Your task to perform on an android device: Clear all items from cart on amazon.com. Search for "razer naga" on amazon.com, select the first entry, and add it to the cart. Image 0: 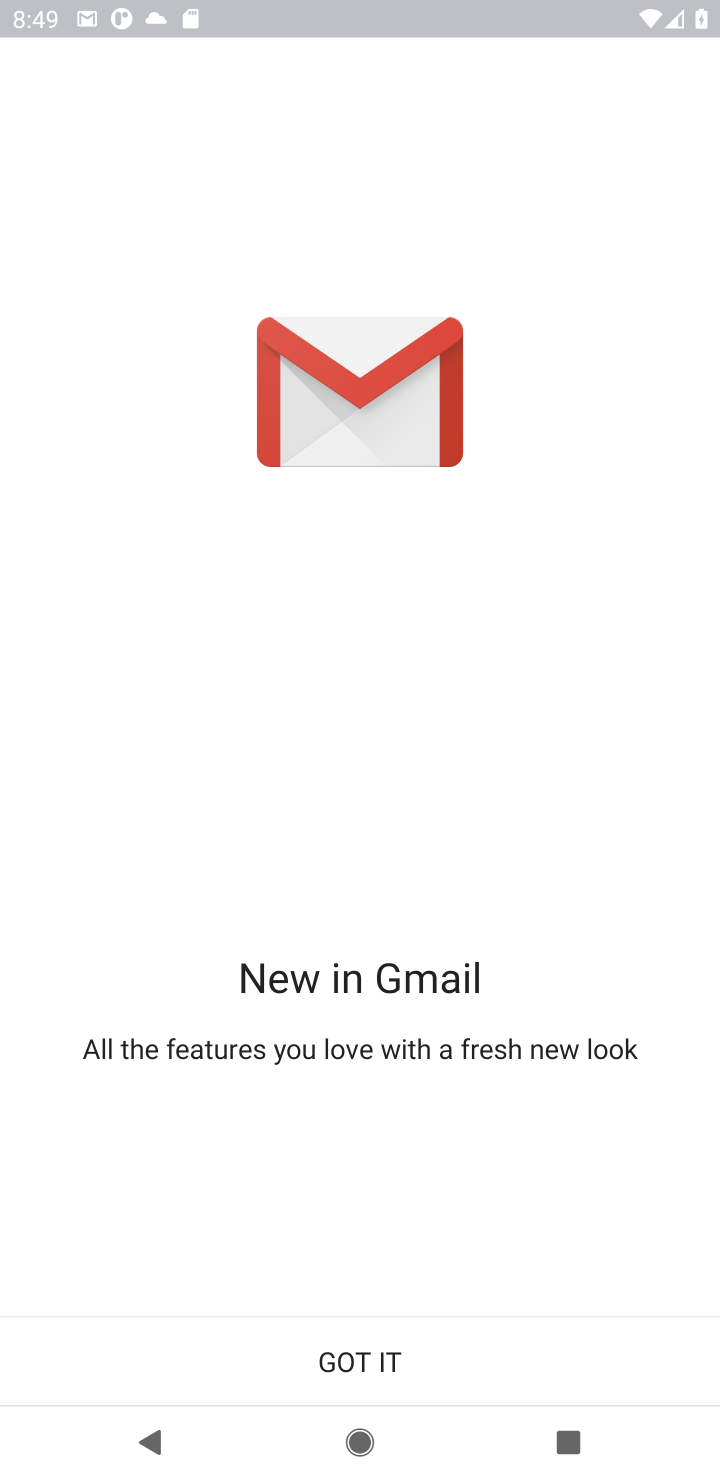
Step 0: press home button
Your task to perform on an android device: Clear all items from cart on amazon.com. Search for "razer naga" on amazon.com, select the first entry, and add it to the cart. Image 1: 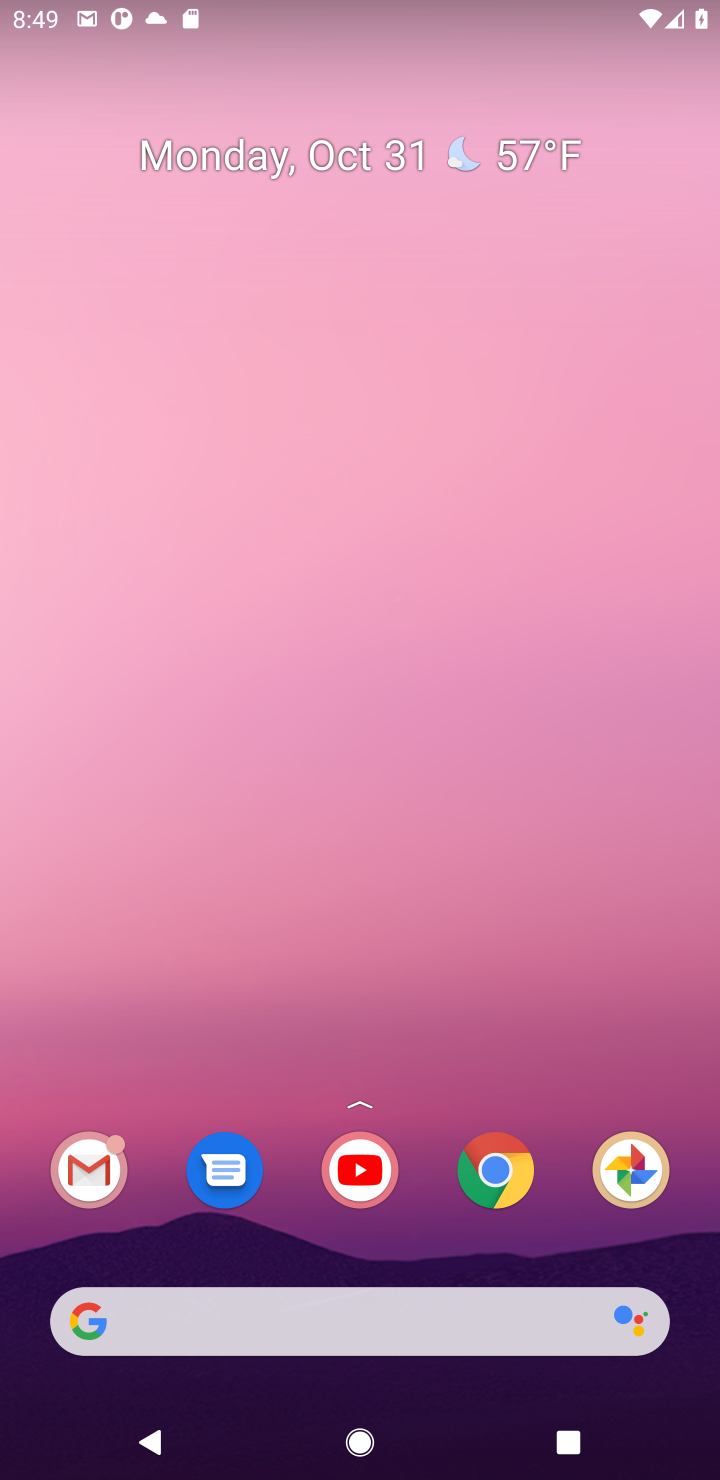
Step 1: click (494, 1193)
Your task to perform on an android device: Clear all items from cart on amazon.com. Search for "razer naga" on amazon.com, select the first entry, and add it to the cart. Image 2: 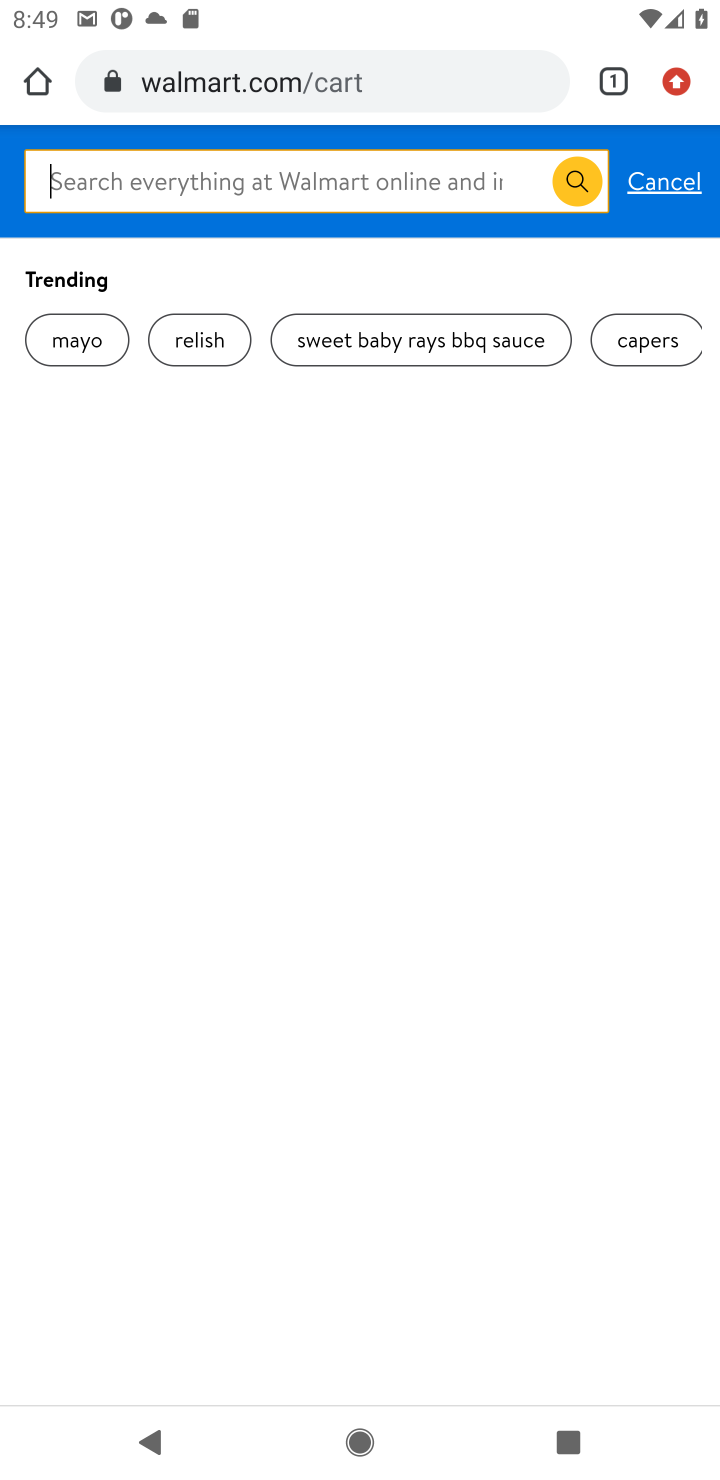
Step 2: click (245, 78)
Your task to perform on an android device: Clear all items from cart on amazon.com. Search for "razer naga" on amazon.com, select the first entry, and add it to the cart. Image 3: 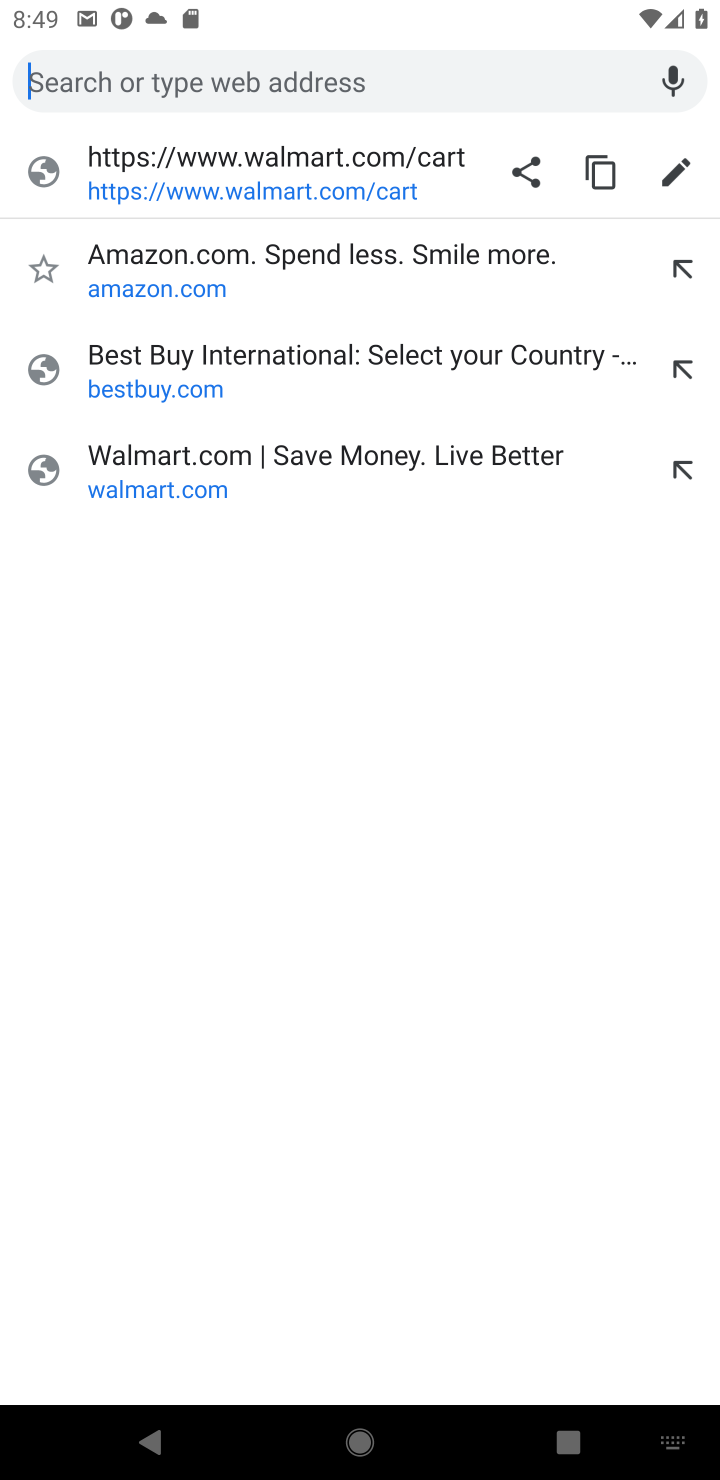
Step 3: click (337, 260)
Your task to perform on an android device: Clear all items from cart on amazon.com. Search for "razer naga" on amazon.com, select the first entry, and add it to the cart. Image 4: 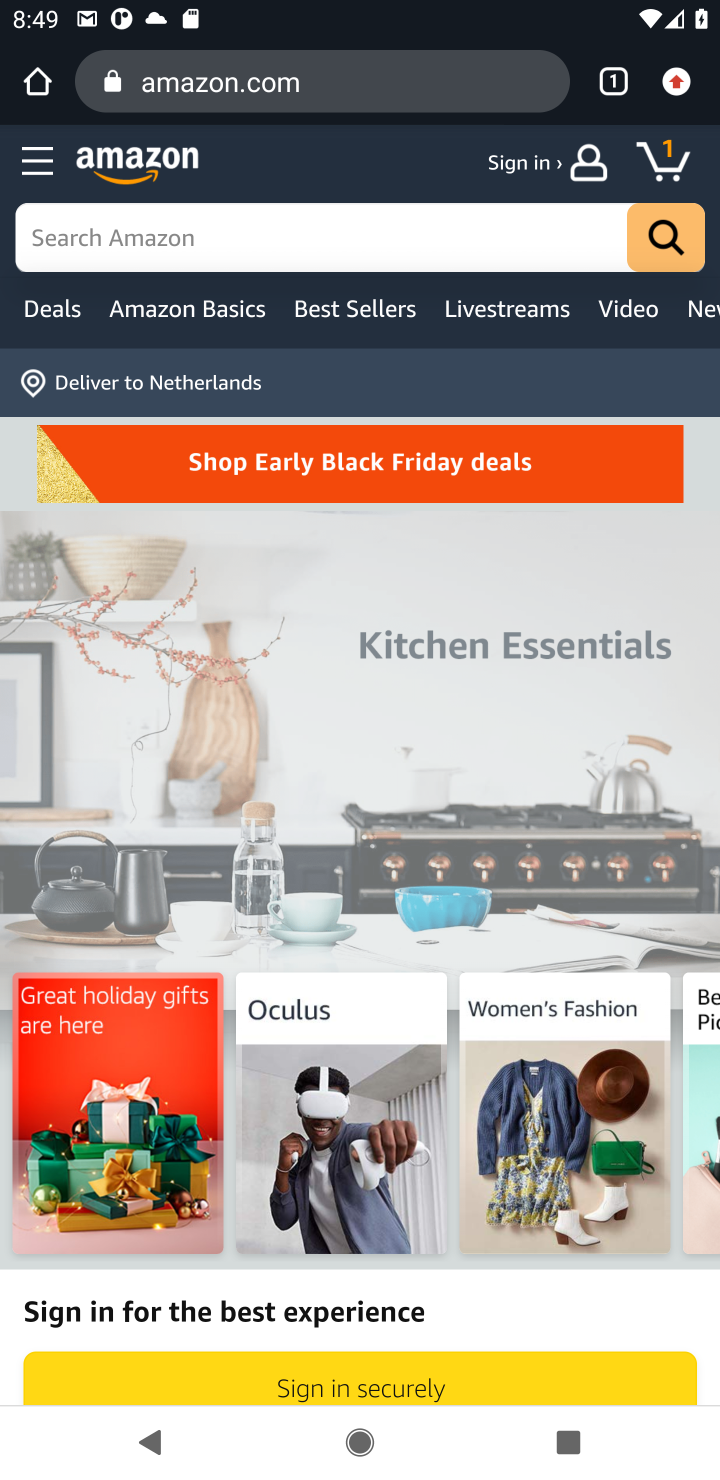
Step 4: click (670, 172)
Your task to perform on an android device: Clear all items from cart on amazon.com. Search for "razer naga" on amazon.com, select the first entry, and add it to the cart. Image 5: 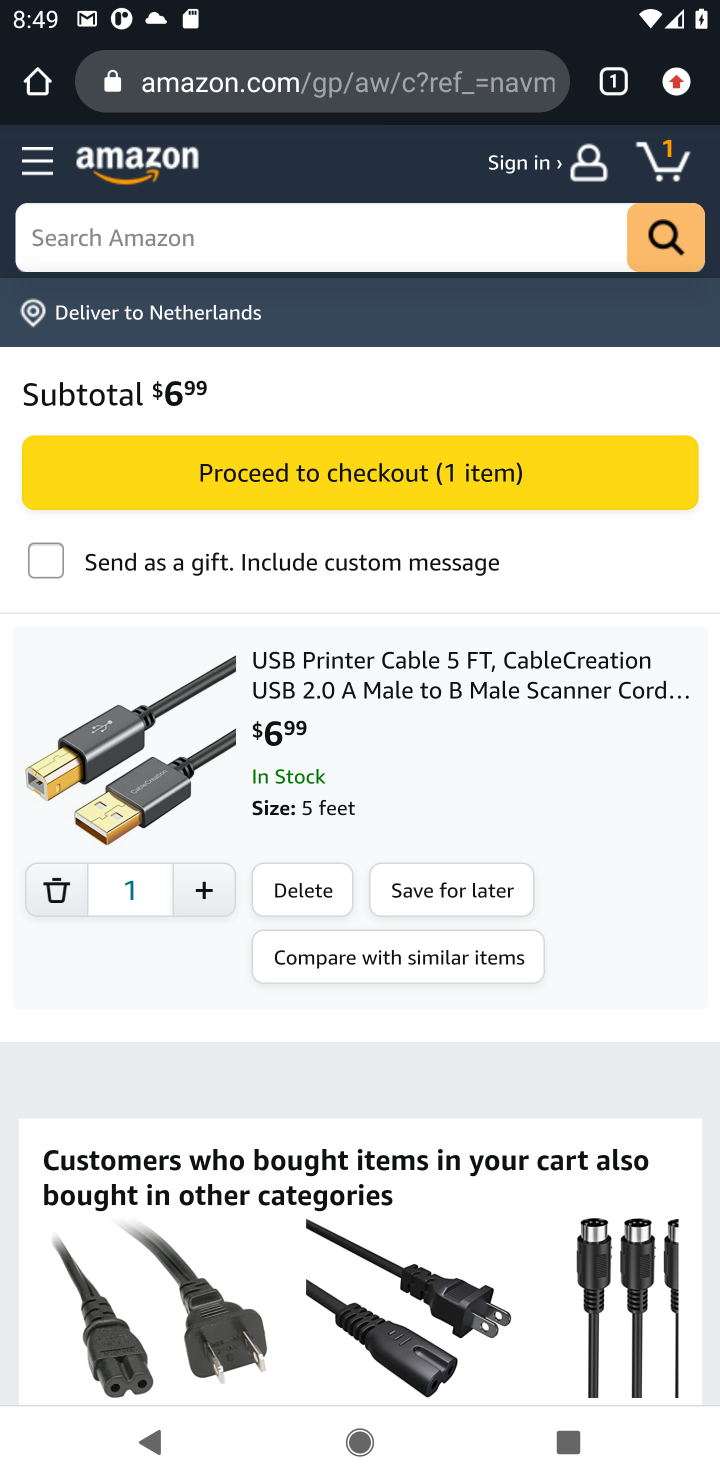
Step 5: click (285, 905)
Your task to perform on an android device: Clear all items from cart on amazon.com. Search for "razer naga" on amazon.com, select the first entry, and add it to the cart. Image 6: 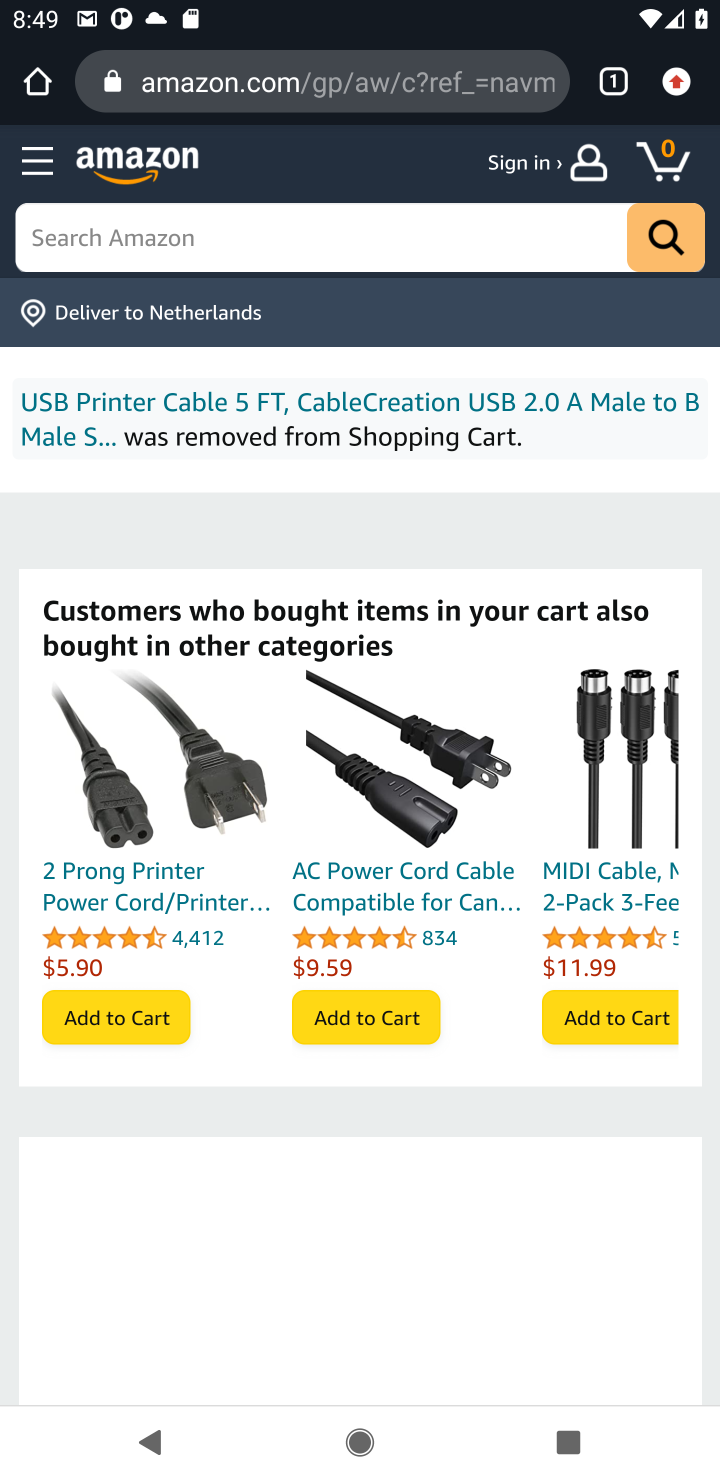
Step 6: click (159, 241)
Your task to perform on an android device: Clear all items from cart on amazon.com. Search for "razer naga" on amazon.com, select the first entry, and add it to the cart. Image 7: 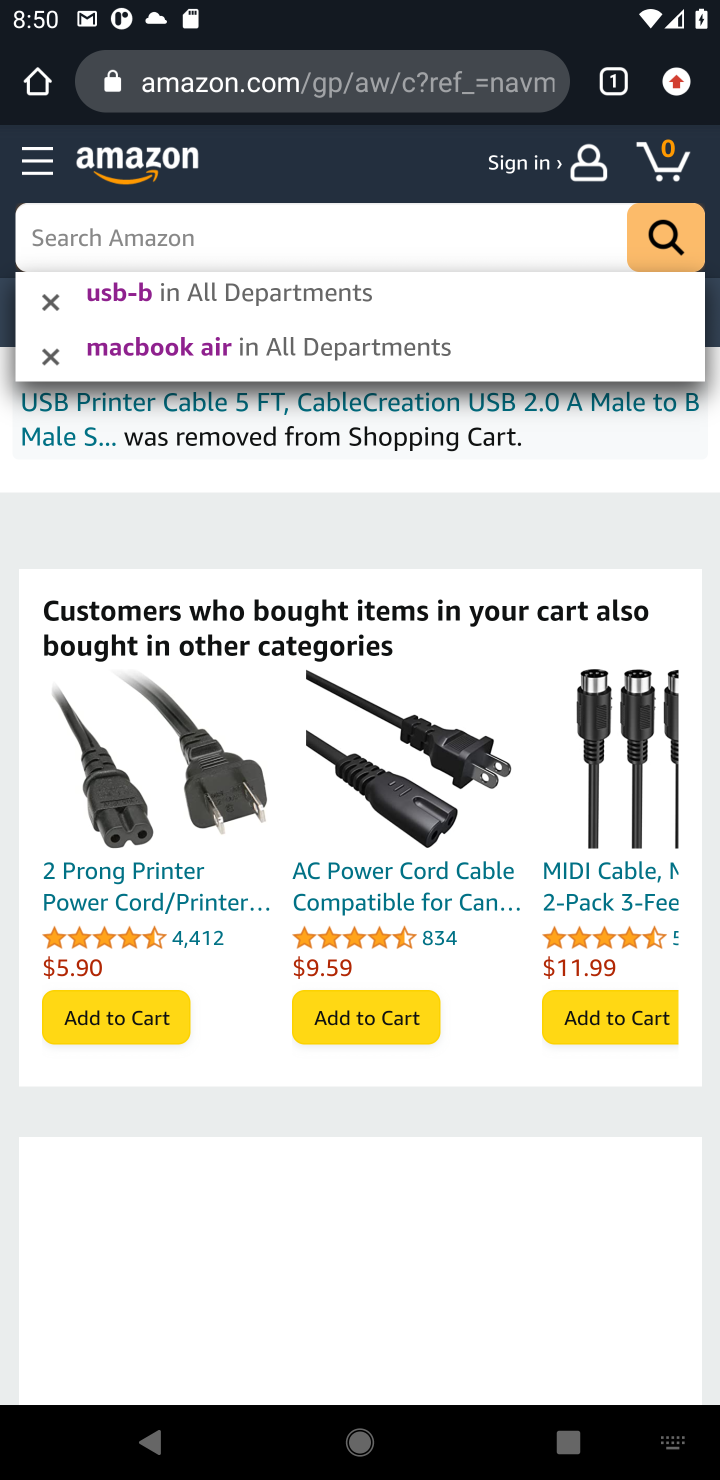
Step 7: type "razer naga"
Your task to perform on an android device: Clear all items from cart on amazon.com. Search for "razer naga" on amazon.com, select the first entry, and add it to the cart. Image 8: 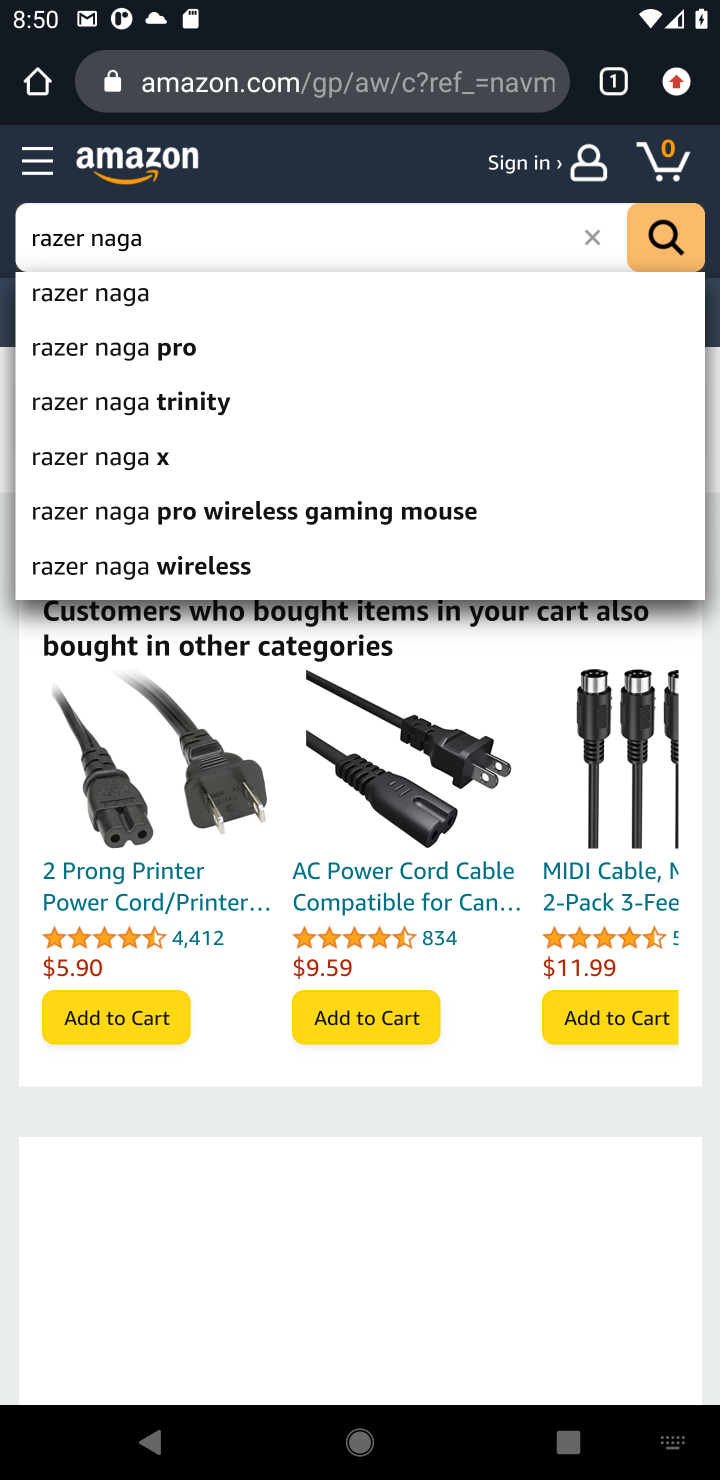
Step 8: click (660, 223)
Your task to perform on an android device: Clear all items from cart on amazon.com. Search for "razer naga" on amazon.com, select the first entry, and add it to the cart. Image 9: 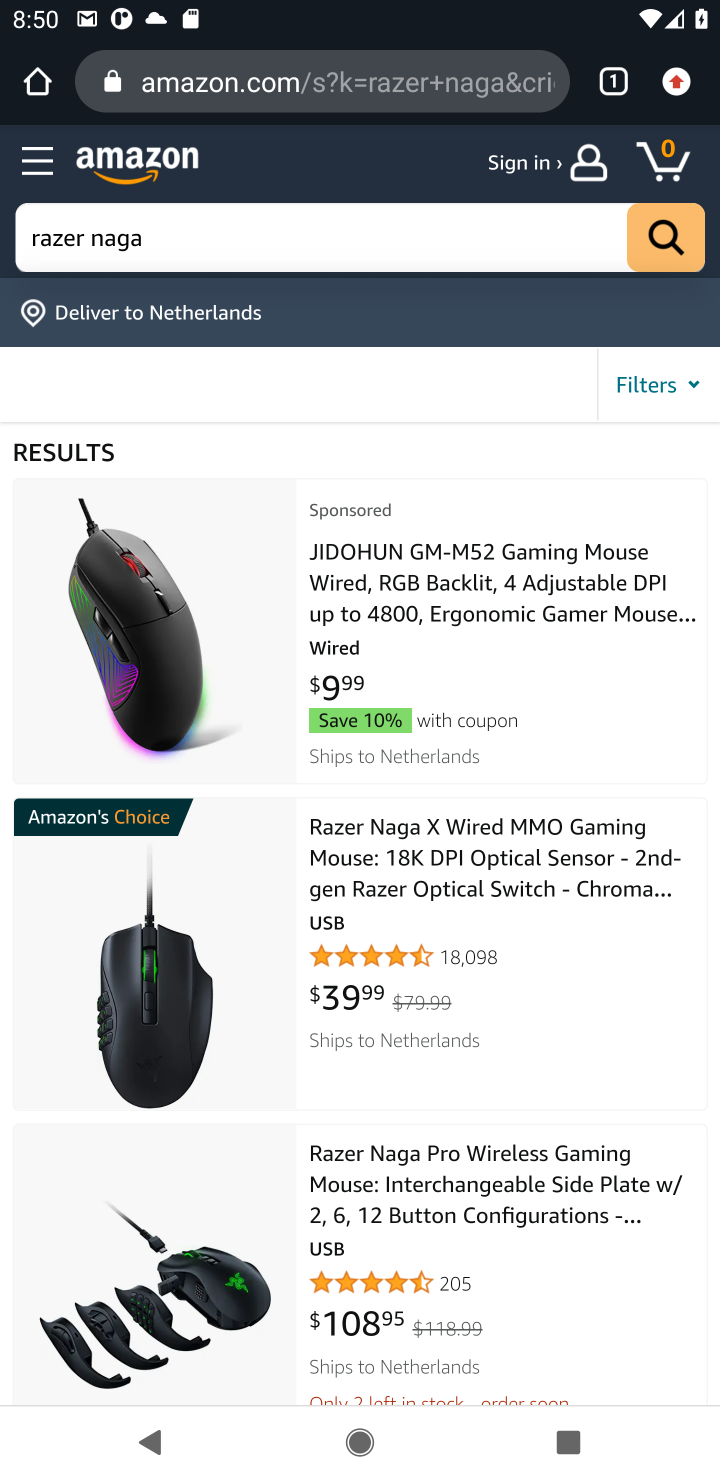
Step 9: click (420, 850)
Your task to perform on an android device: Clear all items from cart on amazon.com. Search for "razer naga" on amazon.com, select the first entry, and add it to the cart. Image 10: 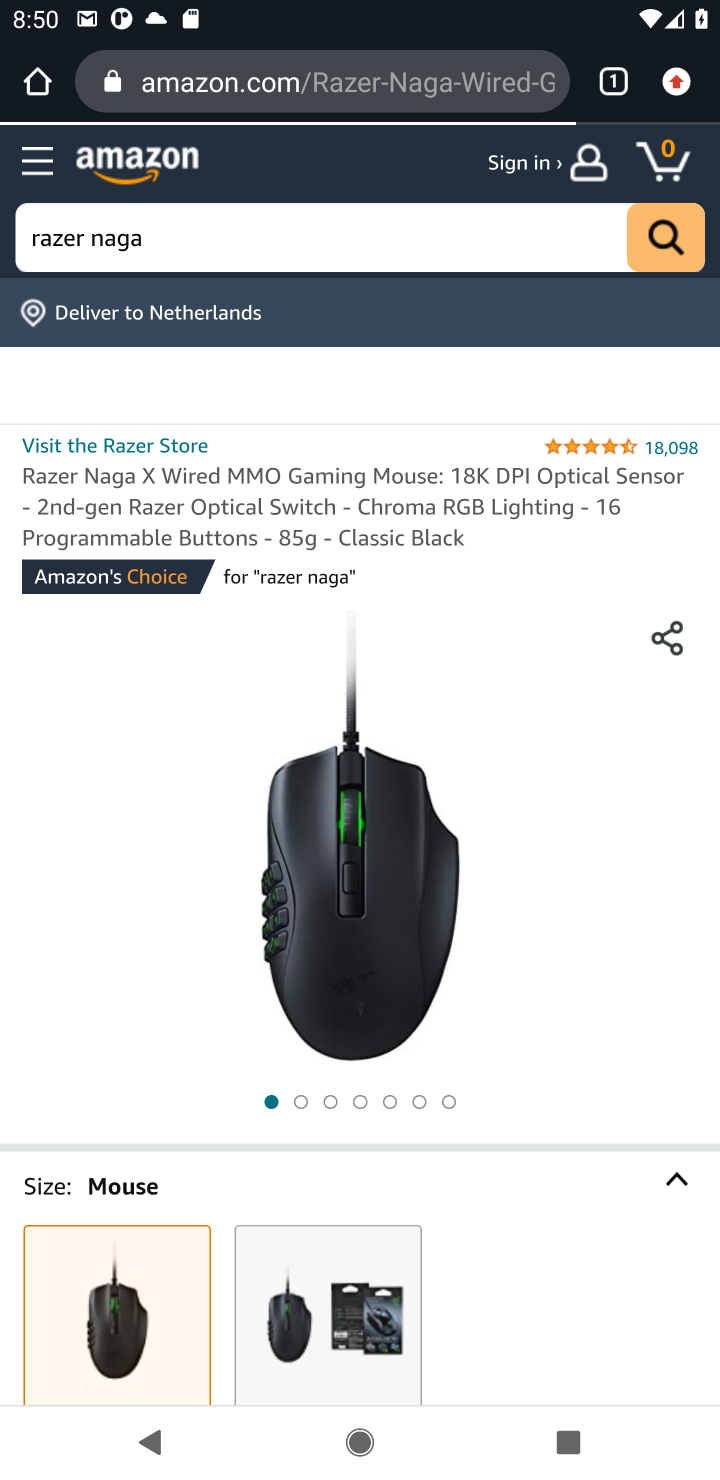
Step 10: drag from (293, 1138) to (199, 358)
Your task to perform on an android device: Clear all items from cart on amazon.com. Search for "razer naga" on amazon.com, select the first entry, and add it to the cart. Image 11: 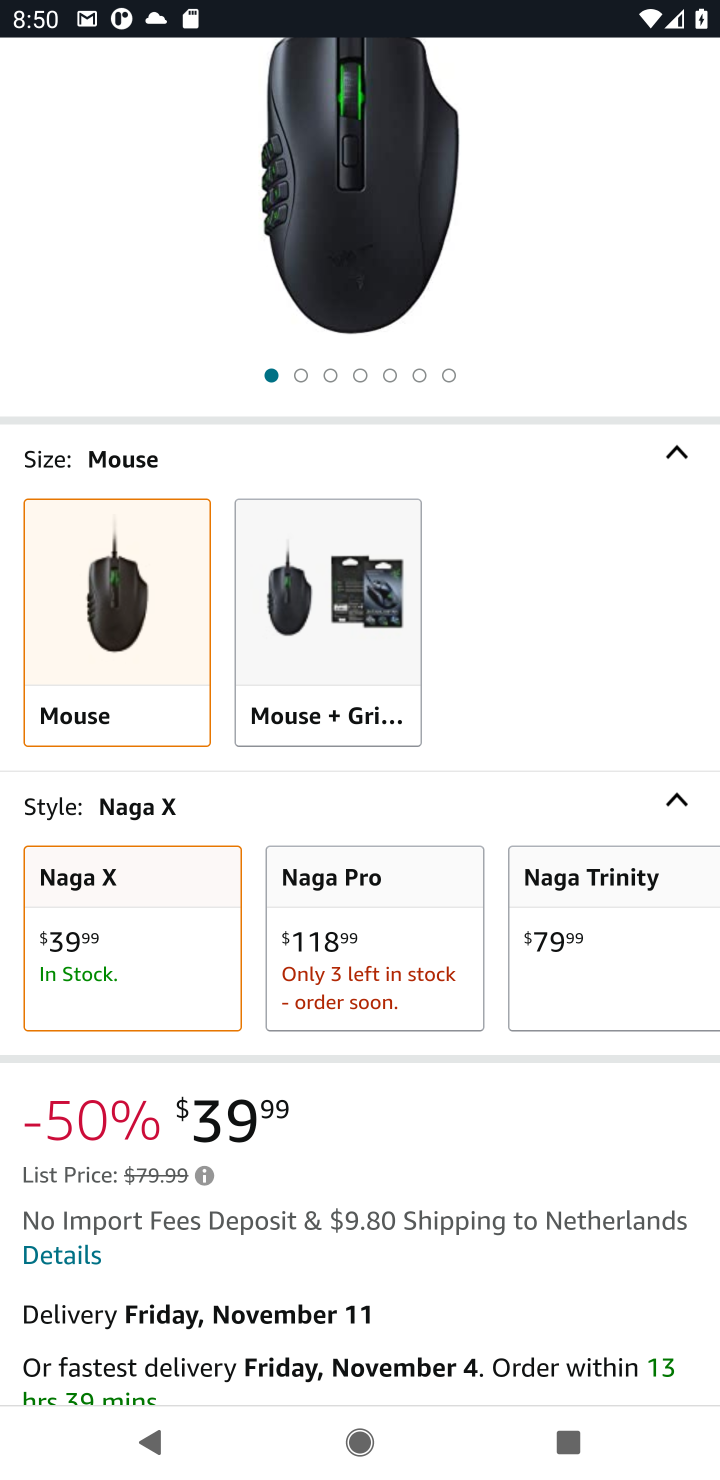
Step 11: drag from (426, 1291) to (473, 506)
Your task to perform on an android device: Clear all items from cart on amazon.com. Search for "razer naga" on amazon.com, select the first entry, and add it to the cart. Image 12: 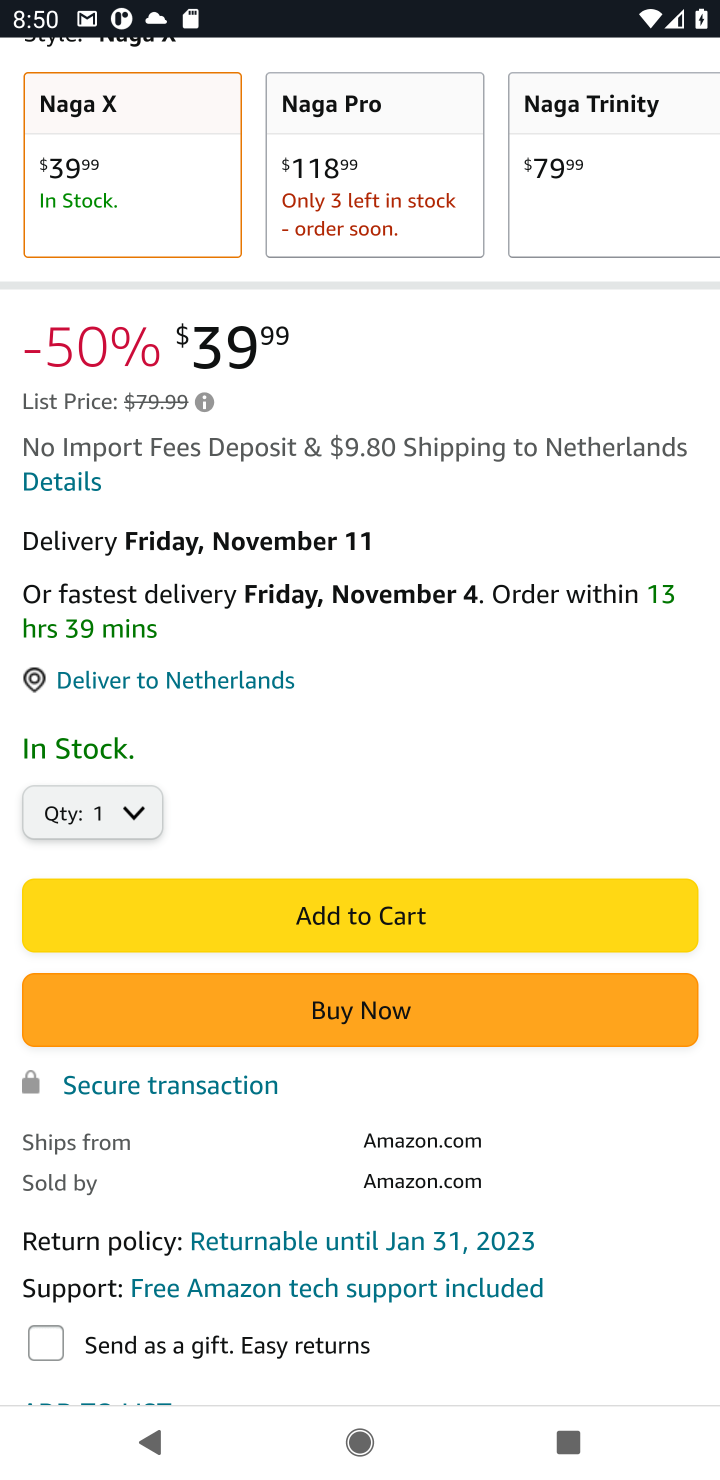
Step 12: click (411, 897)
Your task to perform on an android device: Clear all items from cart on amazon.com. Search for "razer naga" on amazon.com, select the first entry, and add it to the cart. Image 13: 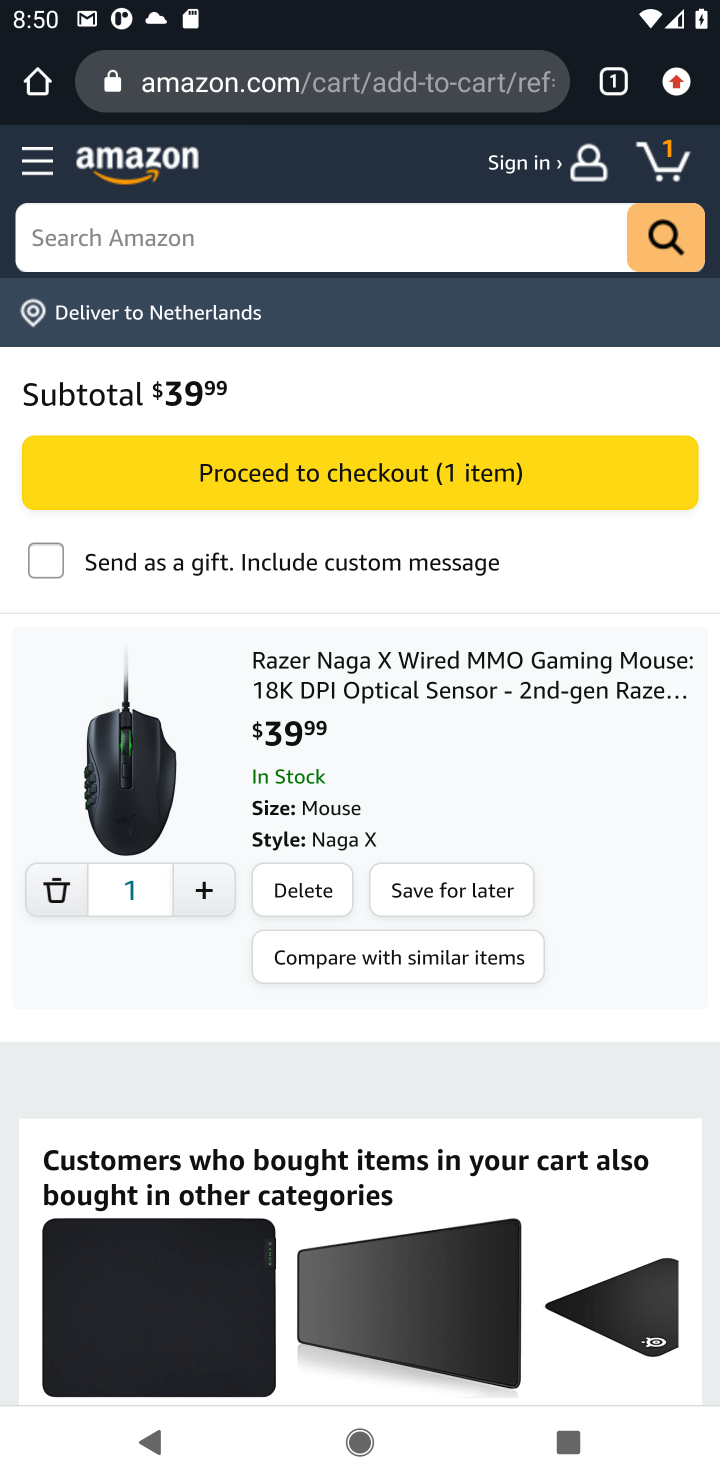
Step 13: task complete